Your task to perform on an android device: What's the weather? Image 0: 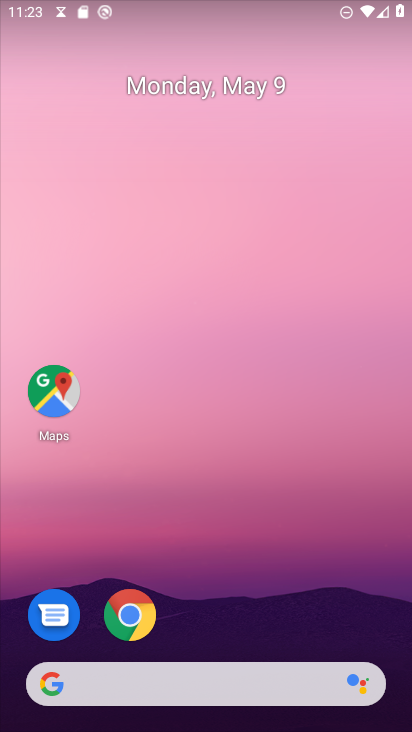
Step 0: drag from (211, 730) to (216, 193)
Your task to perform on an android device: What's the weather? Image 1: 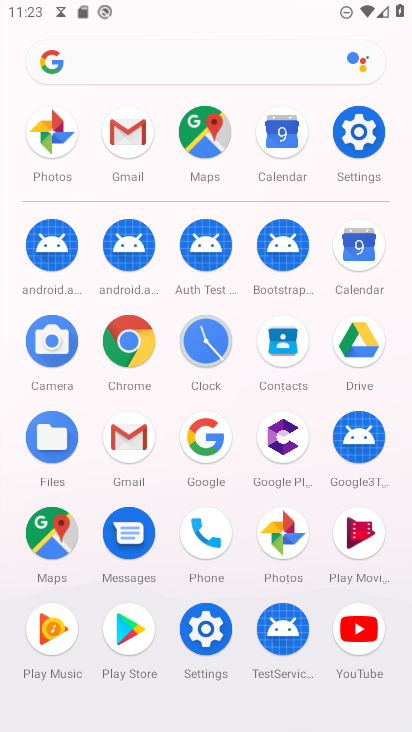
Step 1: click (204, 436)
Your task to perform on an android device: What's the weather? Image 2: 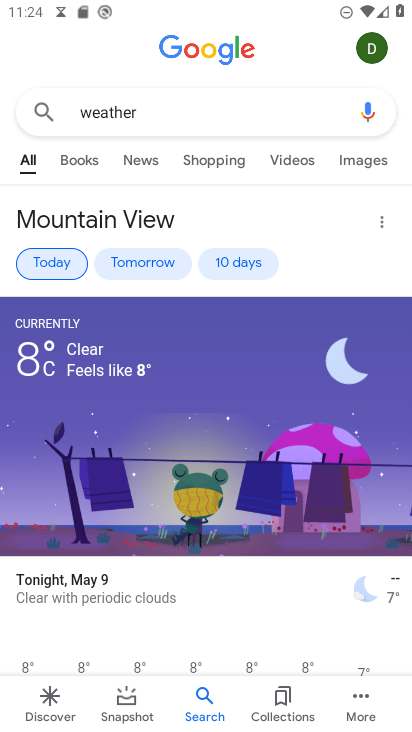
Step 2: task complete